Your task to perform on an android device: Open settings Image 0: 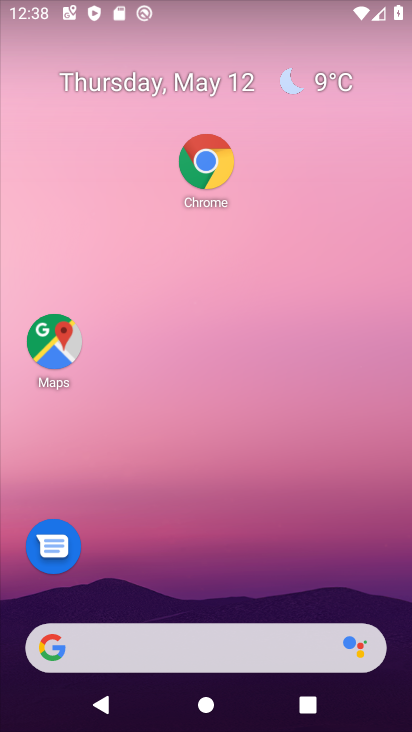
Step 0: drag from (313, 519) to (311, 105)
Your task to perform on an android device: Open settings Image 1: 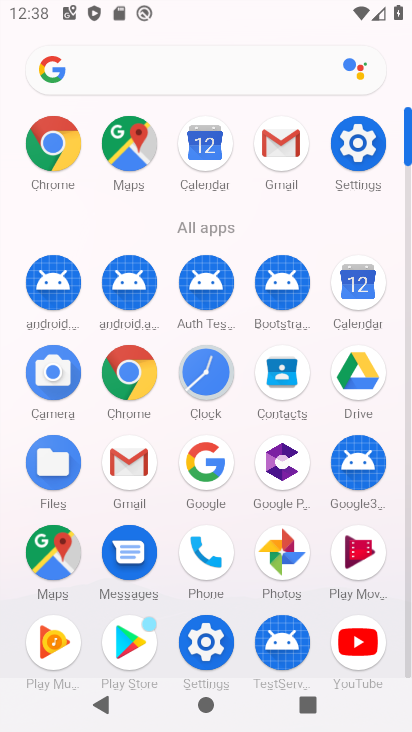
Step 1: click (368, 154)
Your task to perform on an android device: Open settings Image 2: 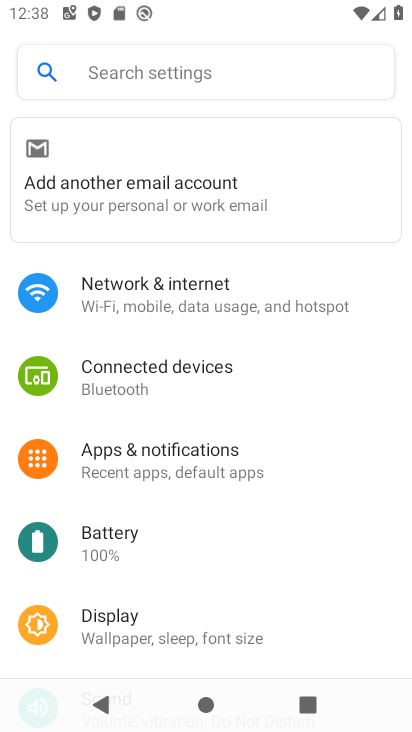
Step 2: task complete